Your task to perform on an android device: Open notification settings Image 0: 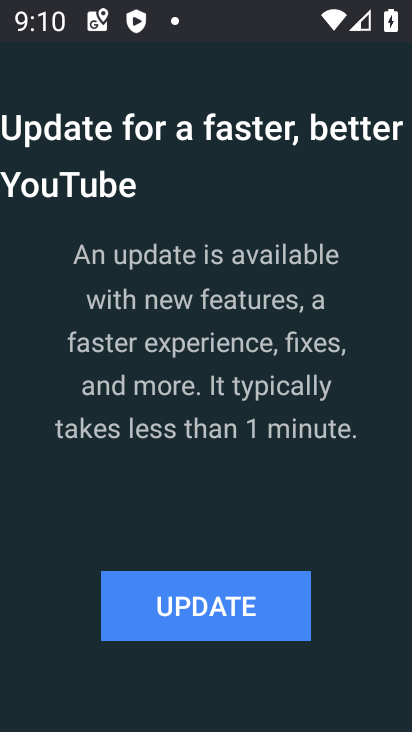
Step 0: press home button
Your task to perform on an android device: Open notification settings Image 1: 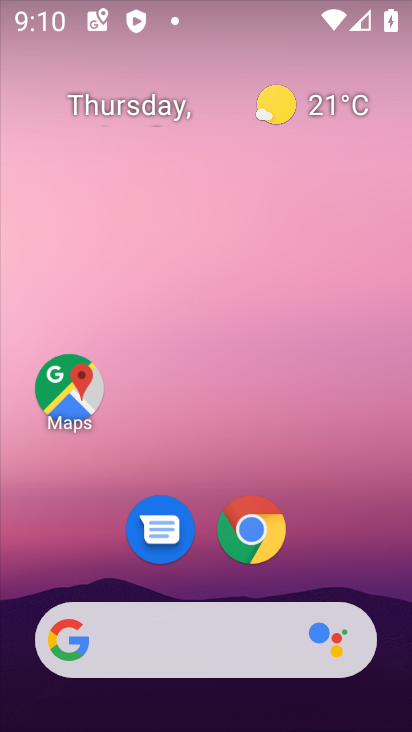
Step 1: drag from (242, 712) to (248, 2)
Your task to perform on an android device: Open notification settings Image 2: 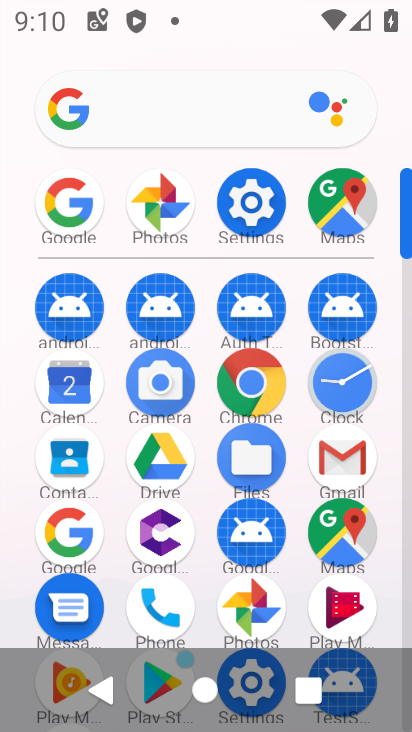
Step 2: click (258, 209)
Your task to perform on an android device: Open notification settings Image 3: 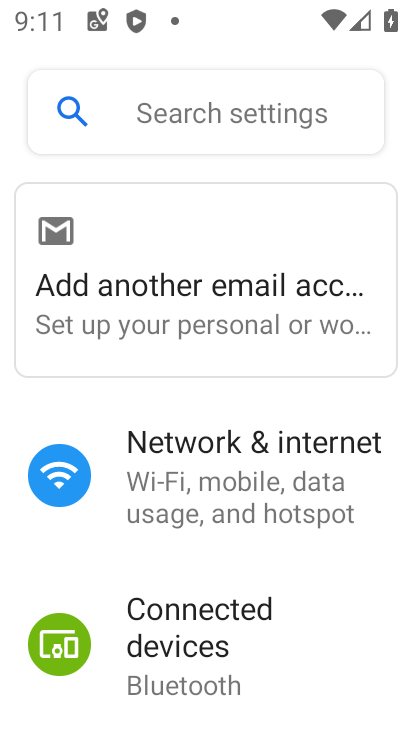
Step 3: task complete